Your task to perform on an android device: Go to calendar. Show me events next week Image 0: 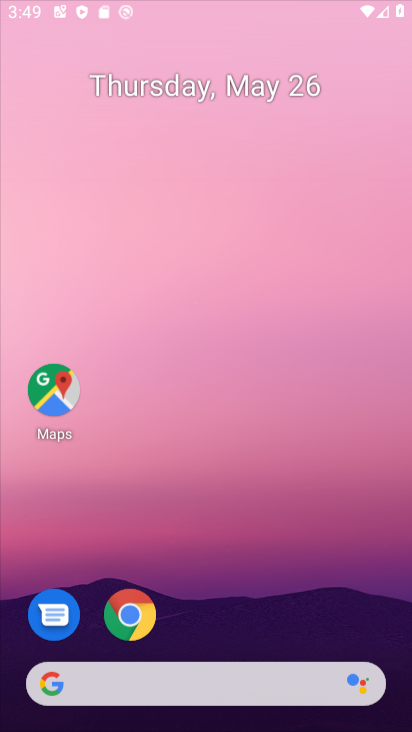
Step 0: click (279, 222)
Your task to perform on an android device: Go to calendar. Show me events next week Image 1: 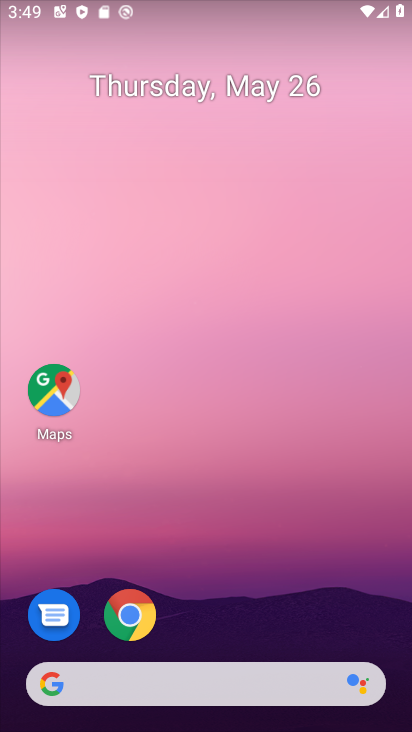
Step 1: drag from (157, 618) to (166, 82)
Your task to perform on an android device: Go to calendar. Show me events next week Image 2: 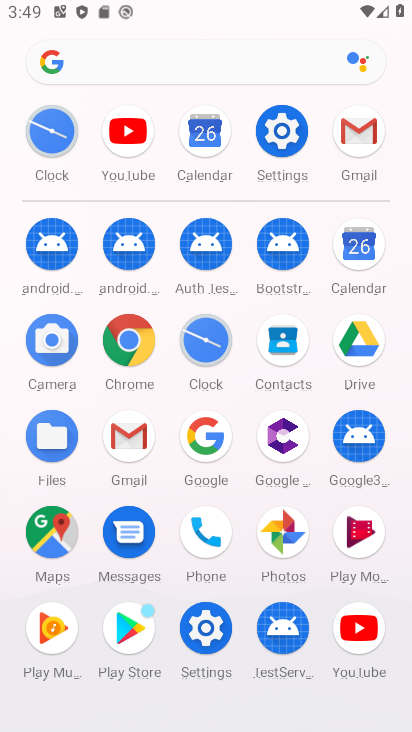
Step 2: click (370, 238)
Your task to perform on an android device: Go to calendar. Show me events next week Image 3: 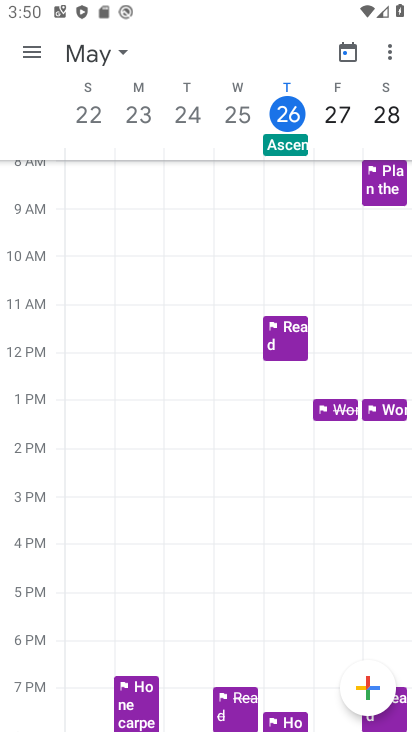
Step 3: click (87, 42)
Your task to perform on an android device: Go to calendar. Show me events next week Image 4: 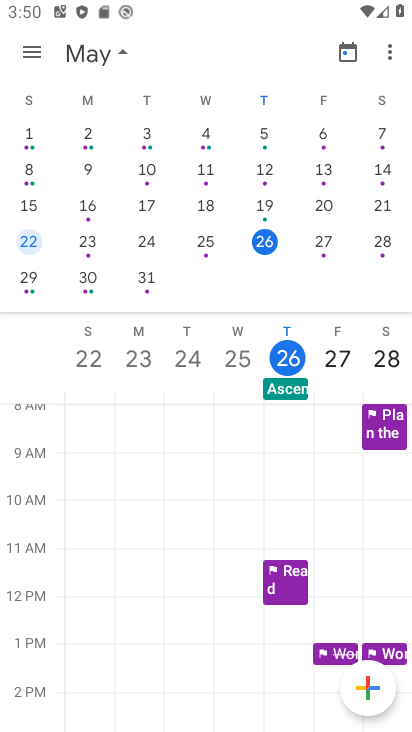
Step 4: click (102, 273)
Your task to perform on an android device: Go to calendar. Show me events next week Image 5: 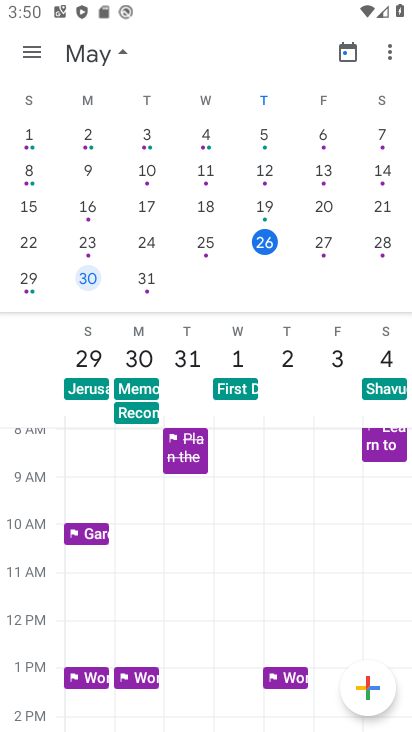
Step 5: task complete